Your task to perform on an android device: Go to sound settings Image 0: 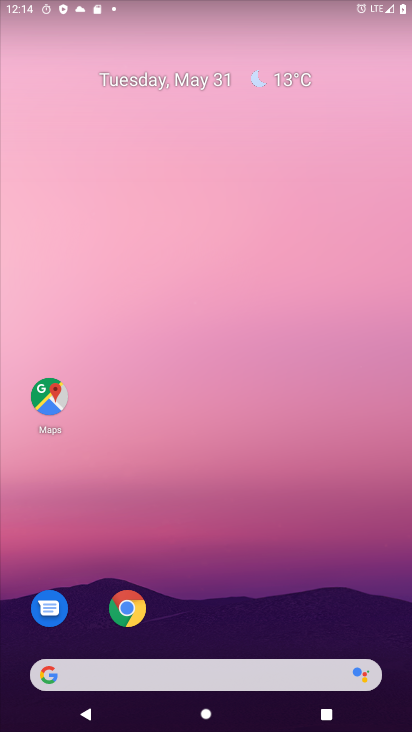
Step 0: drag from (281, 634) to (302, 0)
Your task to perform on an android device: Go to sound settings Image 1: 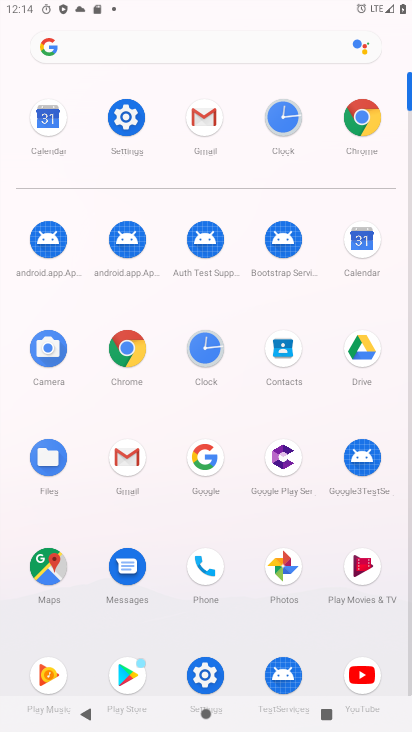
Step 1: click (120, 122)
Your task to perform on an android device: Go to sound settings Image 2: 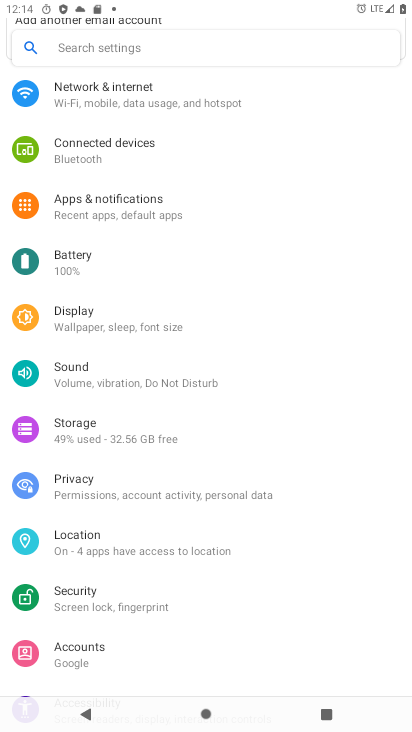
Step 2: click (59, 385)
Your task to perform on an android device: Go to sound settings Image 3: 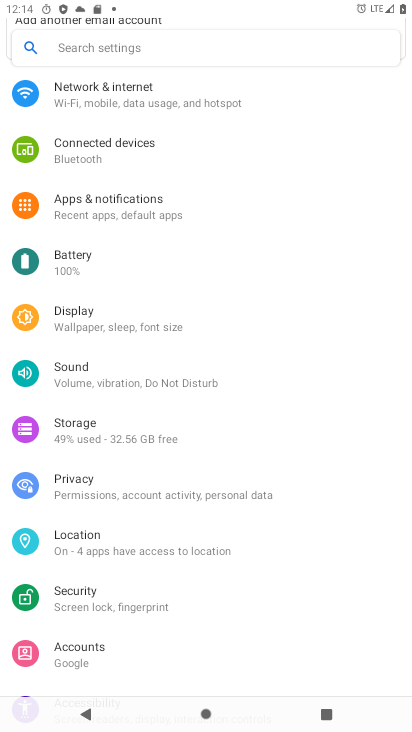
Step 3: click (62, 380)
Your task to perform on an android device: Go to sound settings Image 4: 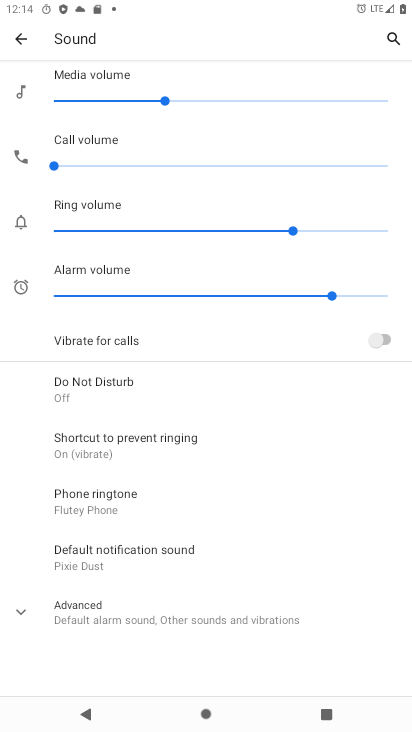
Step 4: task complete